Your task to perform on an android device: Go to Yahoo.com Image 0: 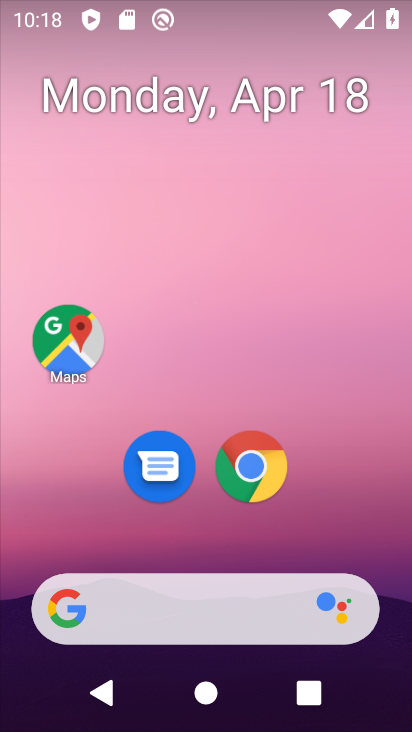
Step 0: drag from (245, 470) to (261, 100)
Your task to perform on an android device: Go to Yahoo.com Image 1: 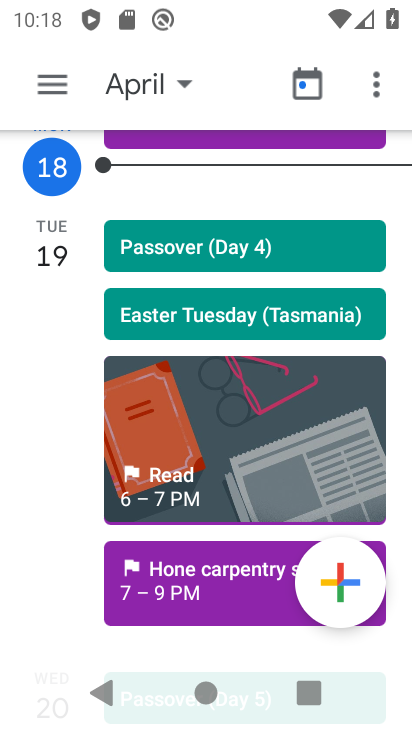
Step 1: press home button
Your task to perform on an android device: Go to Yahoo.com Image 2: 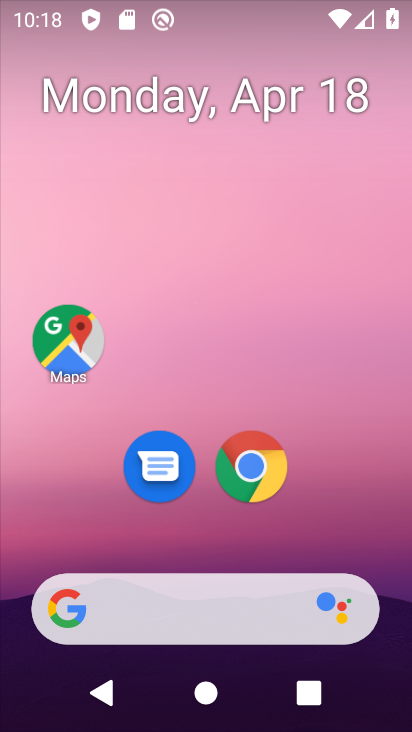
Step 2: click (261, 475)
Your task to perform on an android device: Go to Yahoo.com Image 3: 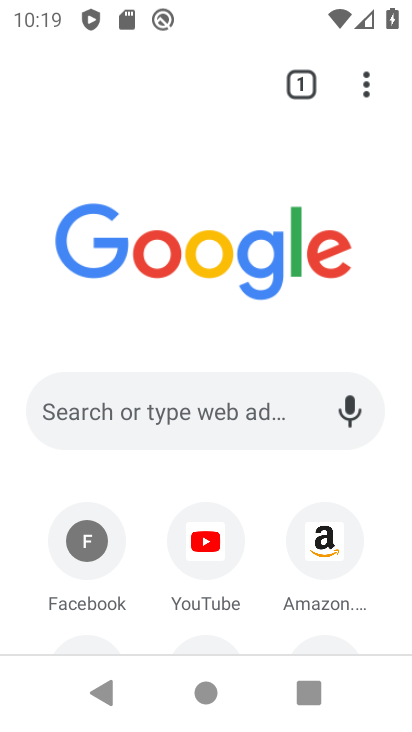
Step 3: drag from (185, 448) to (191, 349)
Your task to perform on an android device: Go to Yahoo.com Image 4: 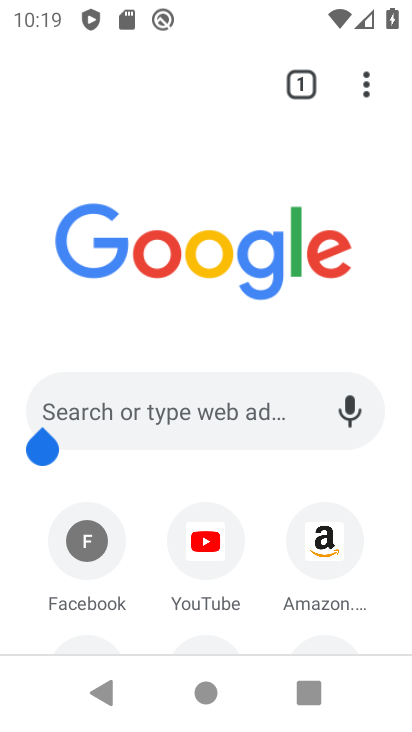
Step 4: click (197, 422)
Your task to perform on an android device: Go to Yahoo.com Image 5: 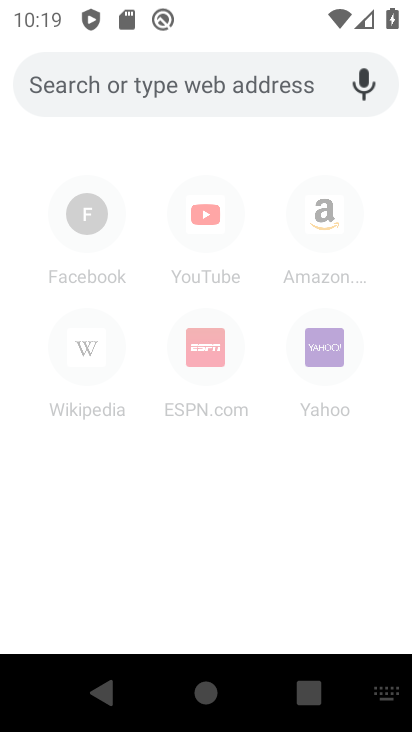
Step 5: click (331, 496)
Your task to perform on an android device: Go to Yahoo.com Image 6: 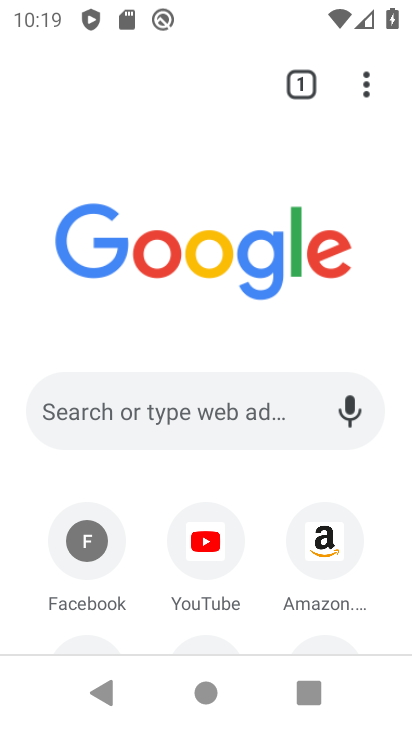
Step 6: drag from (128, 442) to (162, 212)
Your task to perform on an android device: Go to Yahoo.com Image 7: 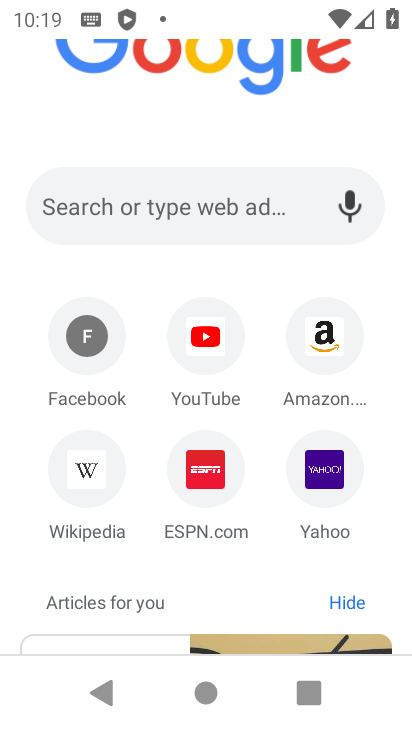
Step 7: click (316, 479)
Your task to perform on an android device: Go to Yahoo.com Image 8: 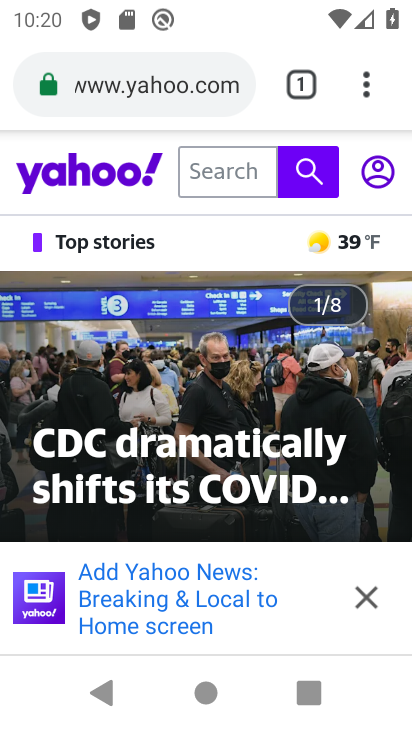
Step 8: task complete